Your task to perform on an android device: delete location history Image 0: 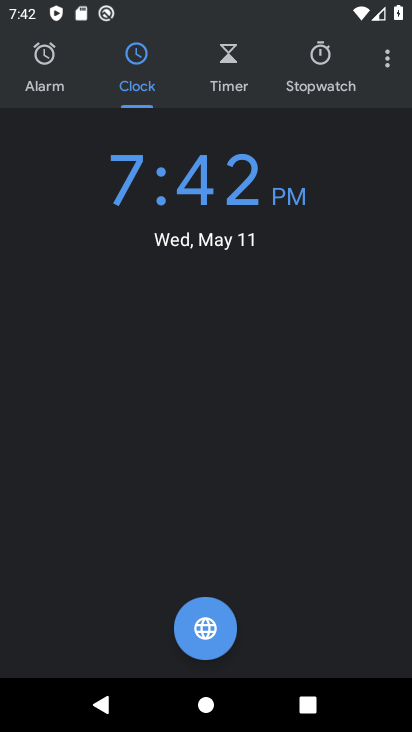
Step 0: press home button
Your task to perform on an android device: delete location history Image 1: 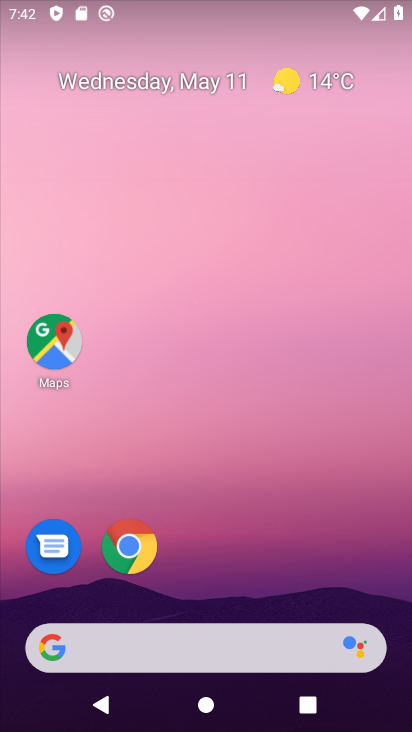
Step 1: click (46, 331)
Your task to perform on an android device: delete location history Image 2: 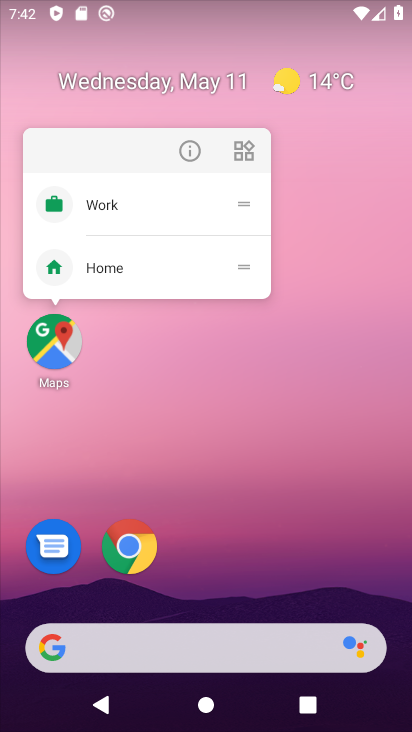
Step 2: click (51, 347)
Your task to perform on an android device: delete location history Image 3: 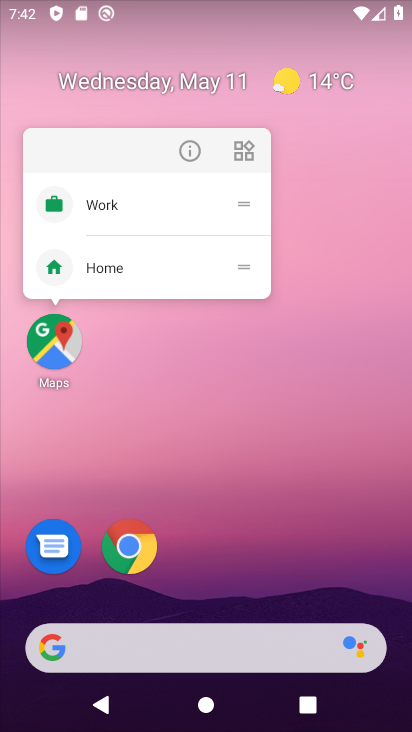
Step 3: click (56, 347)
Your task to perform on an android device: delete location history Image 4: 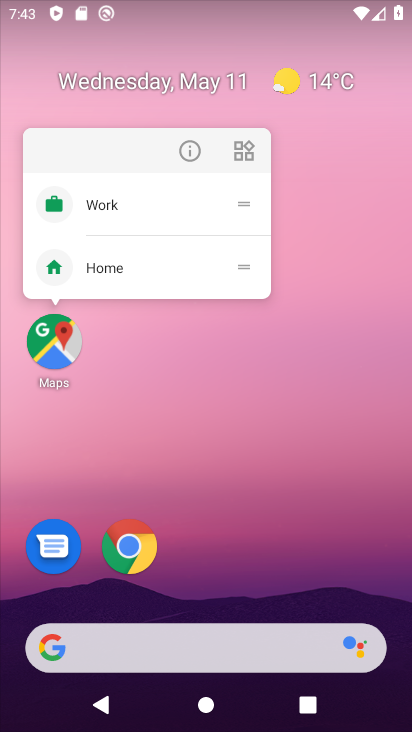
Step 4: click (56, 342)
Your task to perform on an android device: delete location history Image 5: 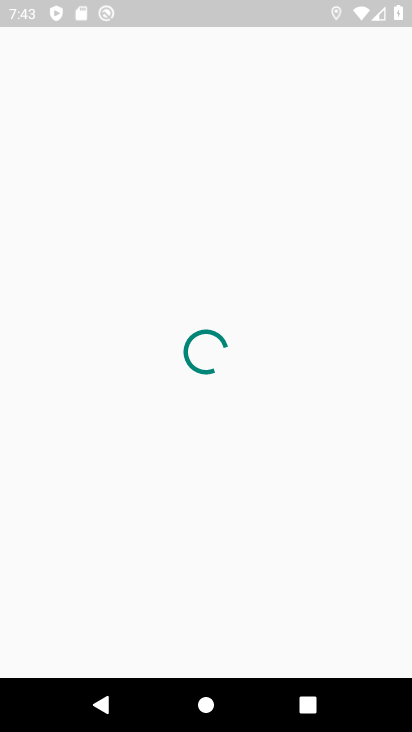
Step 5: click (49, 59)
Your task to perform on an android device: delete location history Image 6: 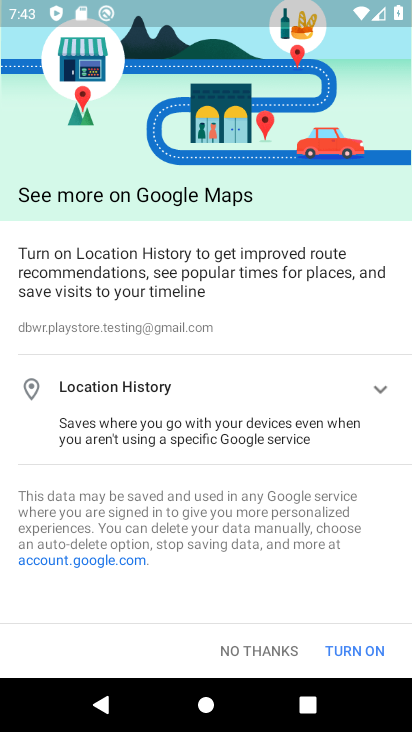
Step 6: click (262, 653)
Your task to perform on an android device: delete location history Image 7: 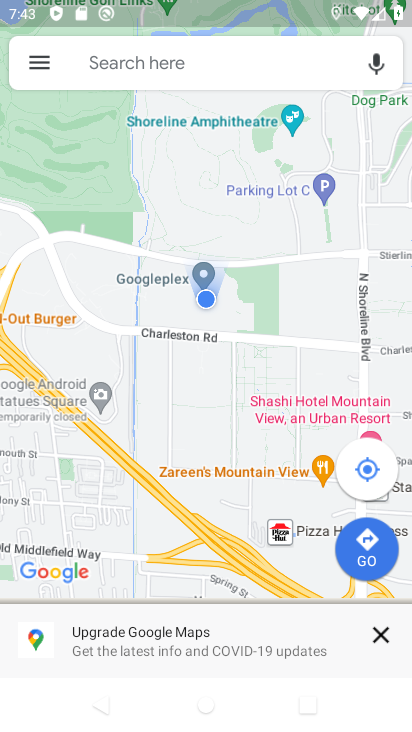
Step 7: click (51, 57)
Your task to perform on an android device: delete location history Image 8: 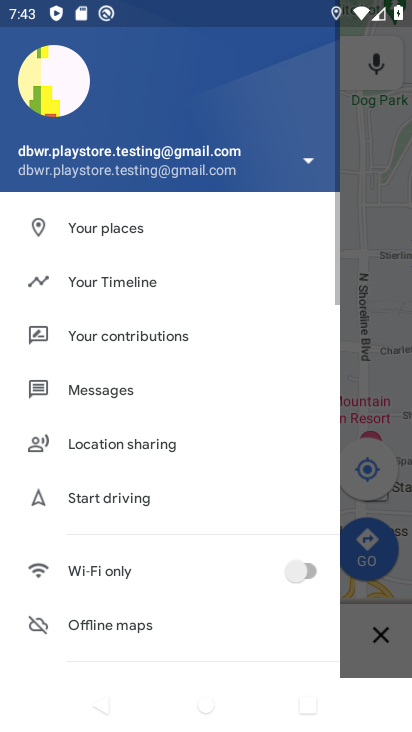
Step 8: drag from (135, 535) to (191, 267)
Your task to perform on an android device: delete location history Image 9: 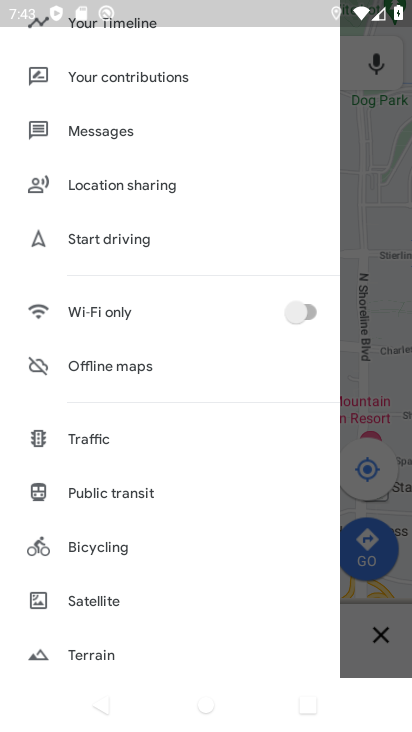
Step 9: drag from (122, 529) to (289, 228)
Your task to perform on an android device: delete location history Image 10: 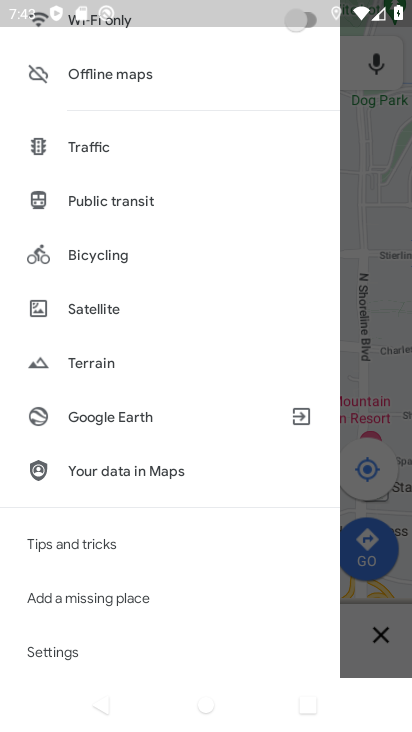
Step 10: click (67, 651)
Your task to perform on an android device: delete location history Image 11: 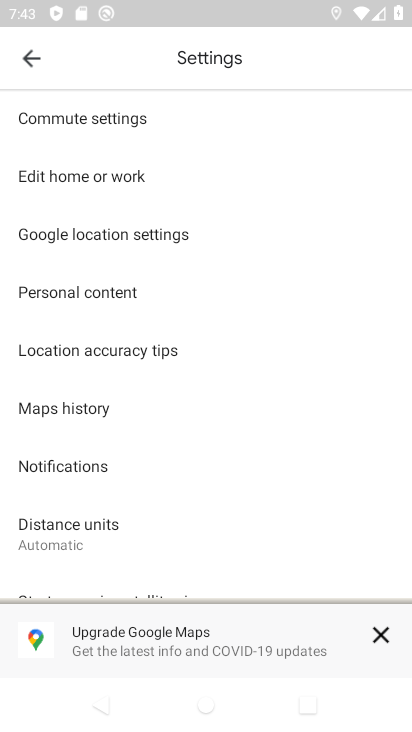
Step 11: click (107, 407)
Your task to perform on an android device: delete location history Image 12: 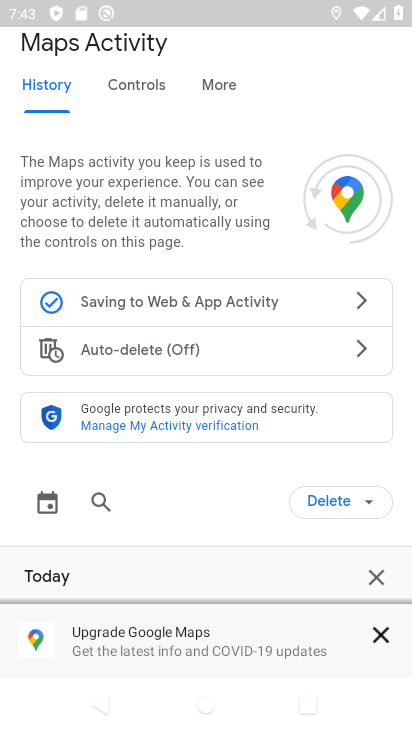
Step 12: drag from (233, 505) to (328, 218)
Your task to perform on an android device: delete location history Image 13: 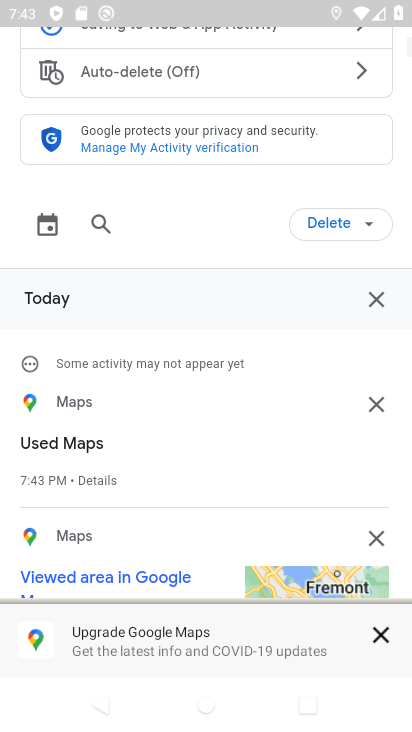
Step 13: click (354, 227)
Your task to perform on an android device: delete location history Image 14: 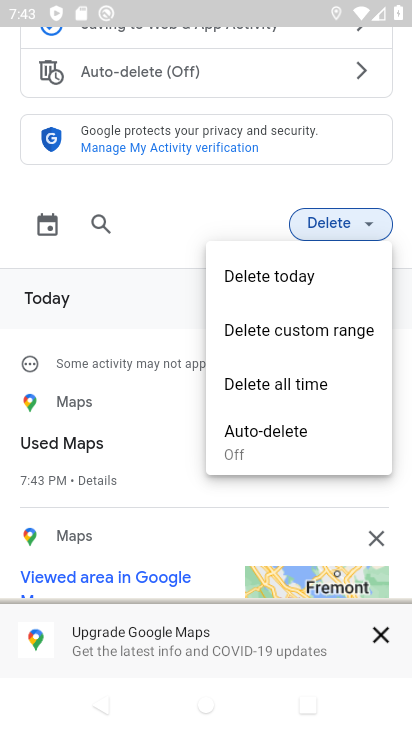
Step 14: click (315, 383)
Your task to perform on an android device: delete location history Image 15: 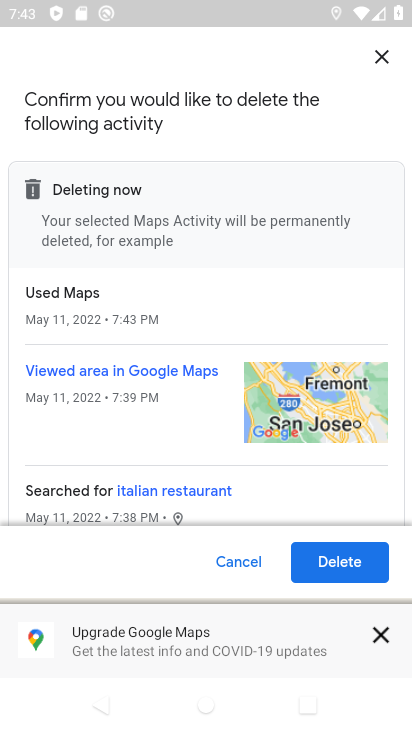
Step 15: click (360, 577)
Your task to perform on an android device: delete location history Image 16: 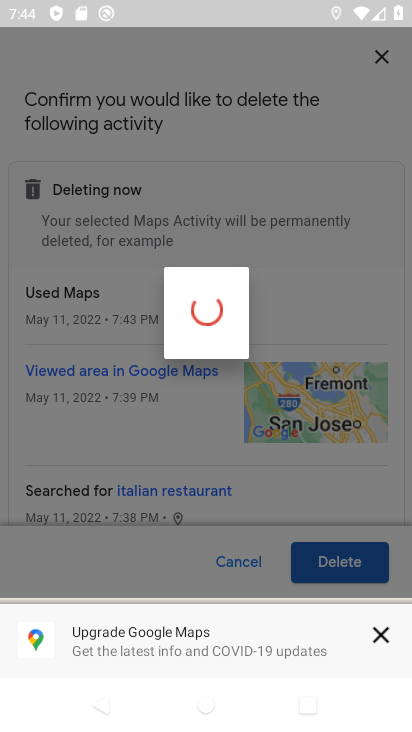
Step 16: click (359, 568)
Your task to perform on an android device: delete location history Image 17: 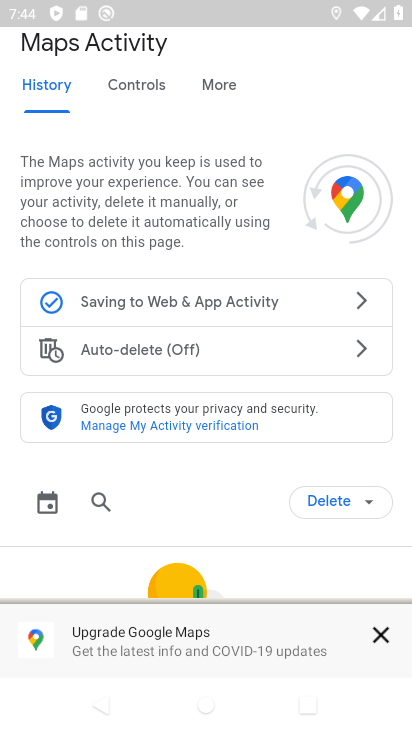
Step 17: task complete